Your task to perform on an android device: change the clock style Image 0: 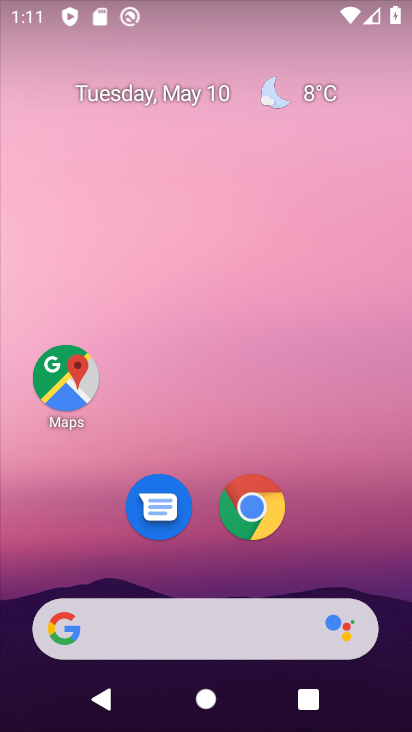
Step 0: drag from (340, 655) to (241, 228)
Your task to perform on an android device: change the clock style Image 1: 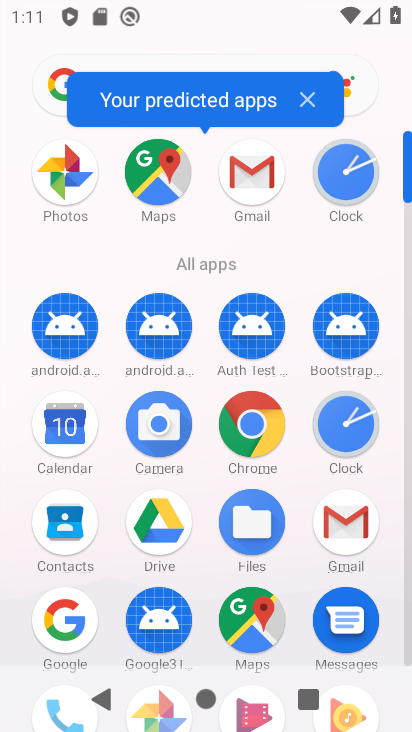
Step 1: click (350, 412)
Your task to perform on an android device: change the clock style Image 2: 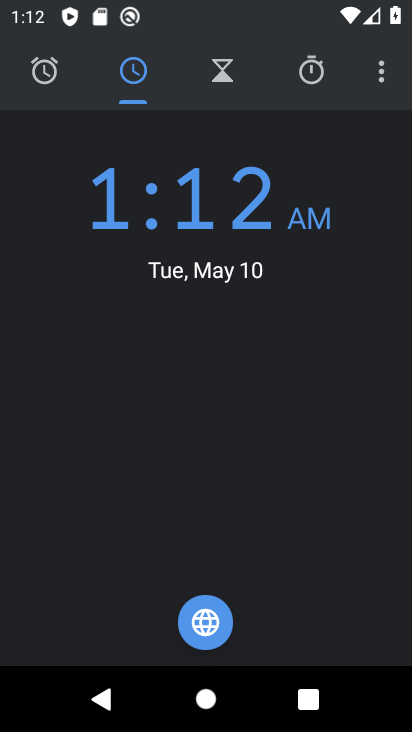
Step 2: click (369, 92)
Your task to perform on an android device: change the clock style Image 3: 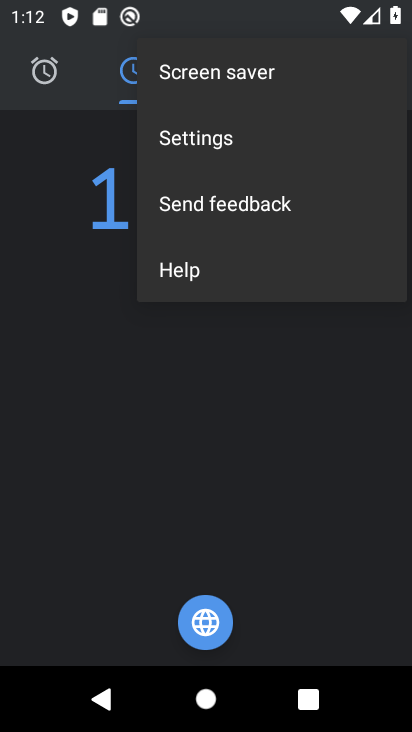
Step 3: click (229, 133)
Your task to perform on an android device: change the clock style Image 4: 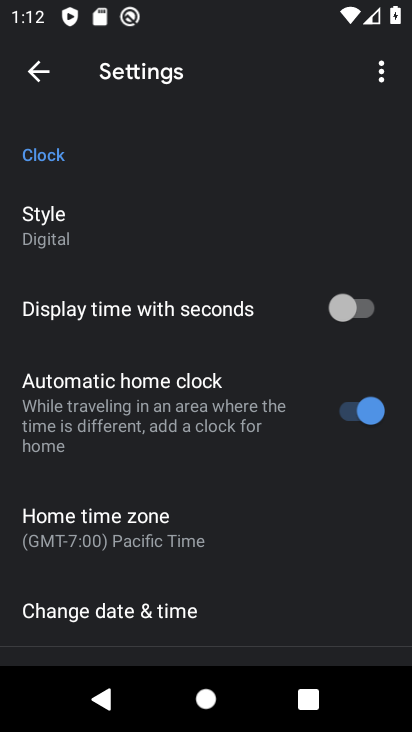
Step 4: click (182, 224)
Your task to perform on an android device: change the clock style Image 5: 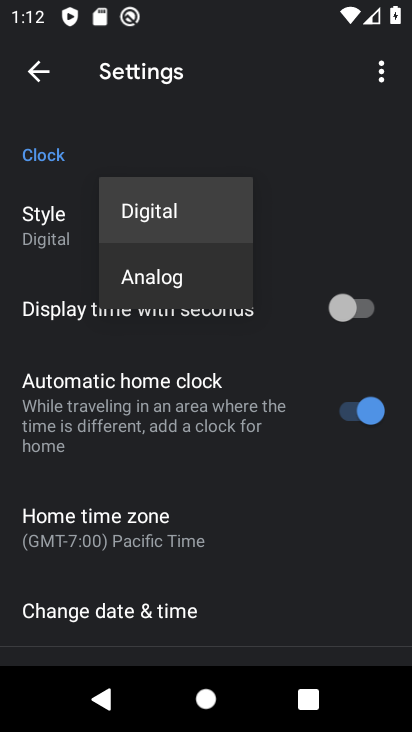
Step 5: click (183, 267)
Your task to perform on an android device: change the clock style Image 6: 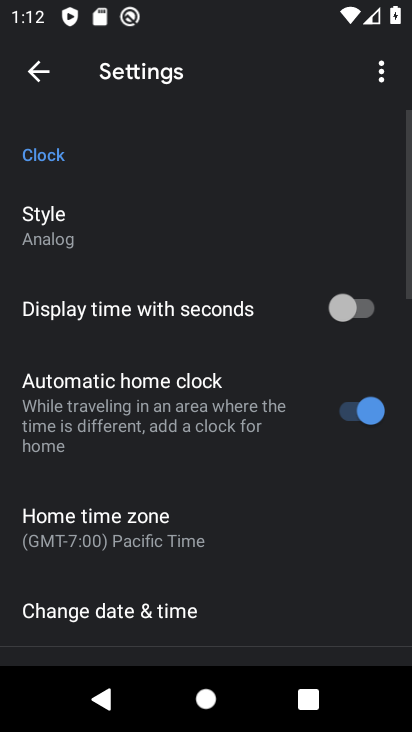
Step 6: task complete